Your task to perform on an android device: set the timer Image 0: 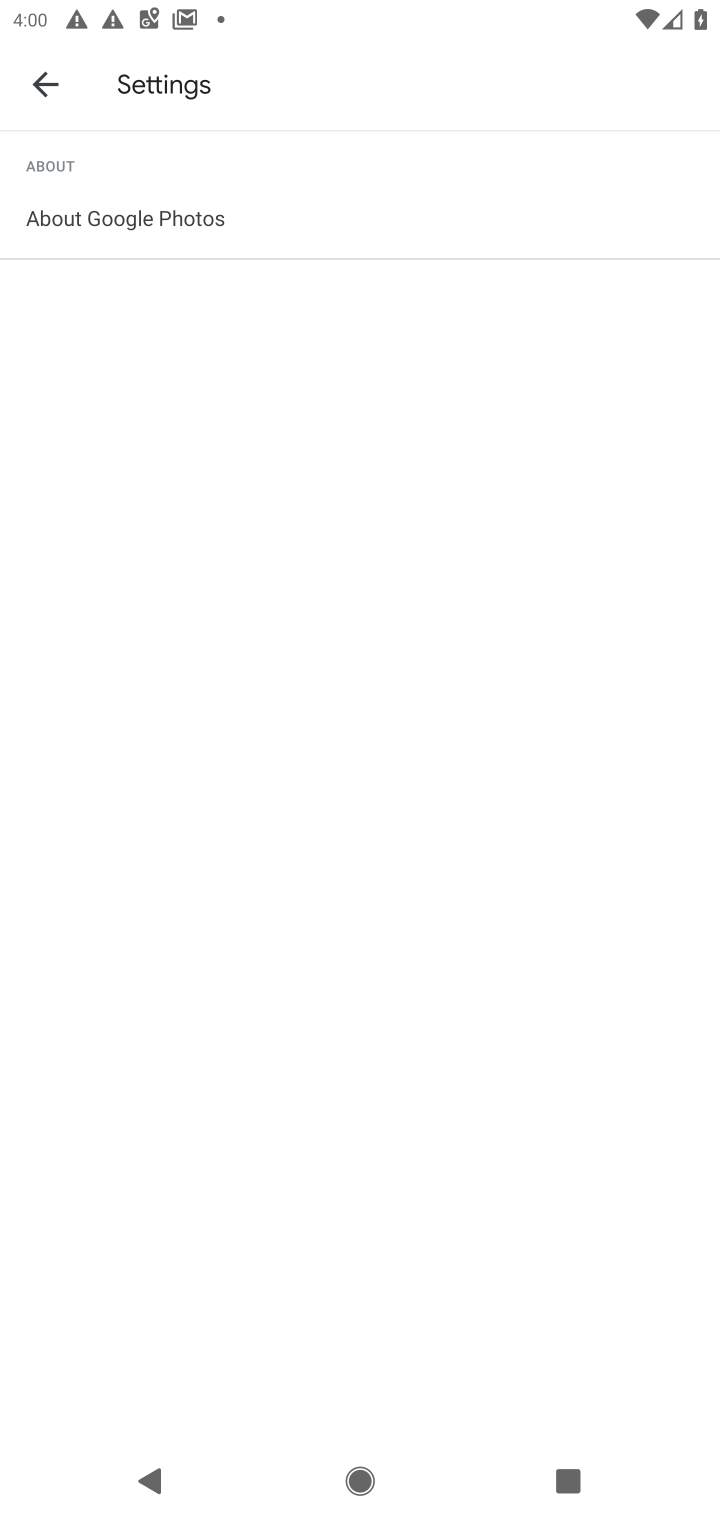
Step 0: press home button
Your task to perform on an android device: set the timer Image 1: 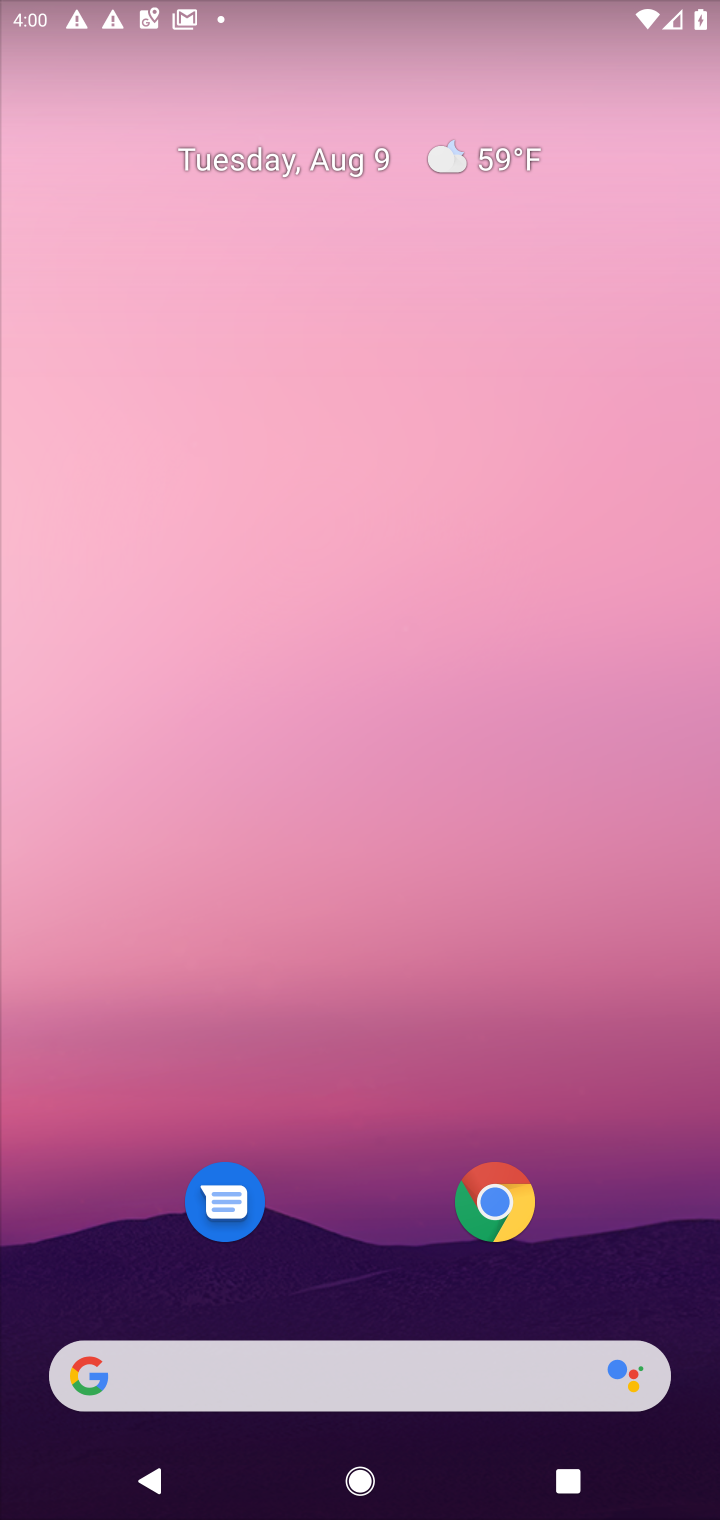
Step 1: drag from (401, 1229) to (481, 198)
Your task to perform on an android device: set the timer Image 2: 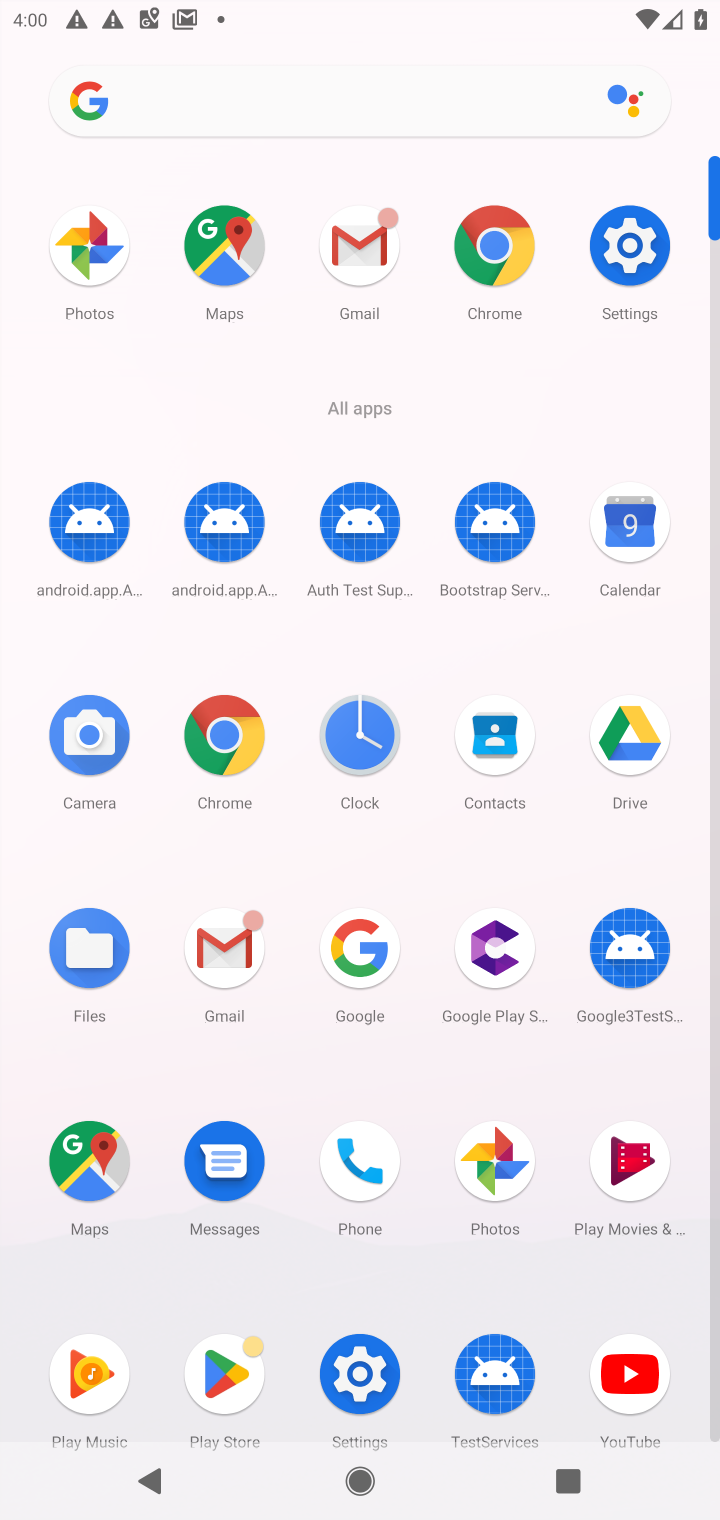
Step 2: click (368, 717)
Your task to perform on an android device: set the timer Image 3: 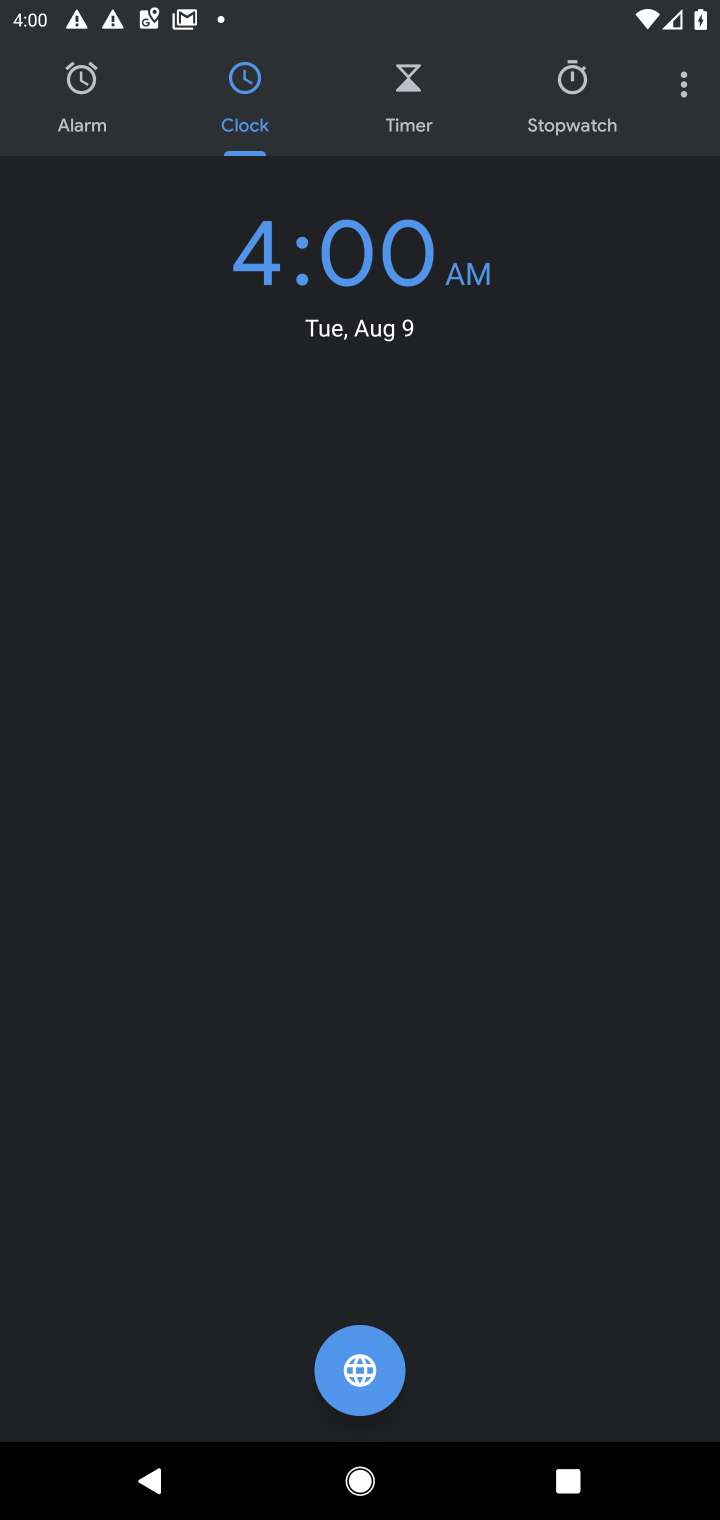
Step 3: click (418, 85)
Your task to perform on an android device: set the timer Image 4: 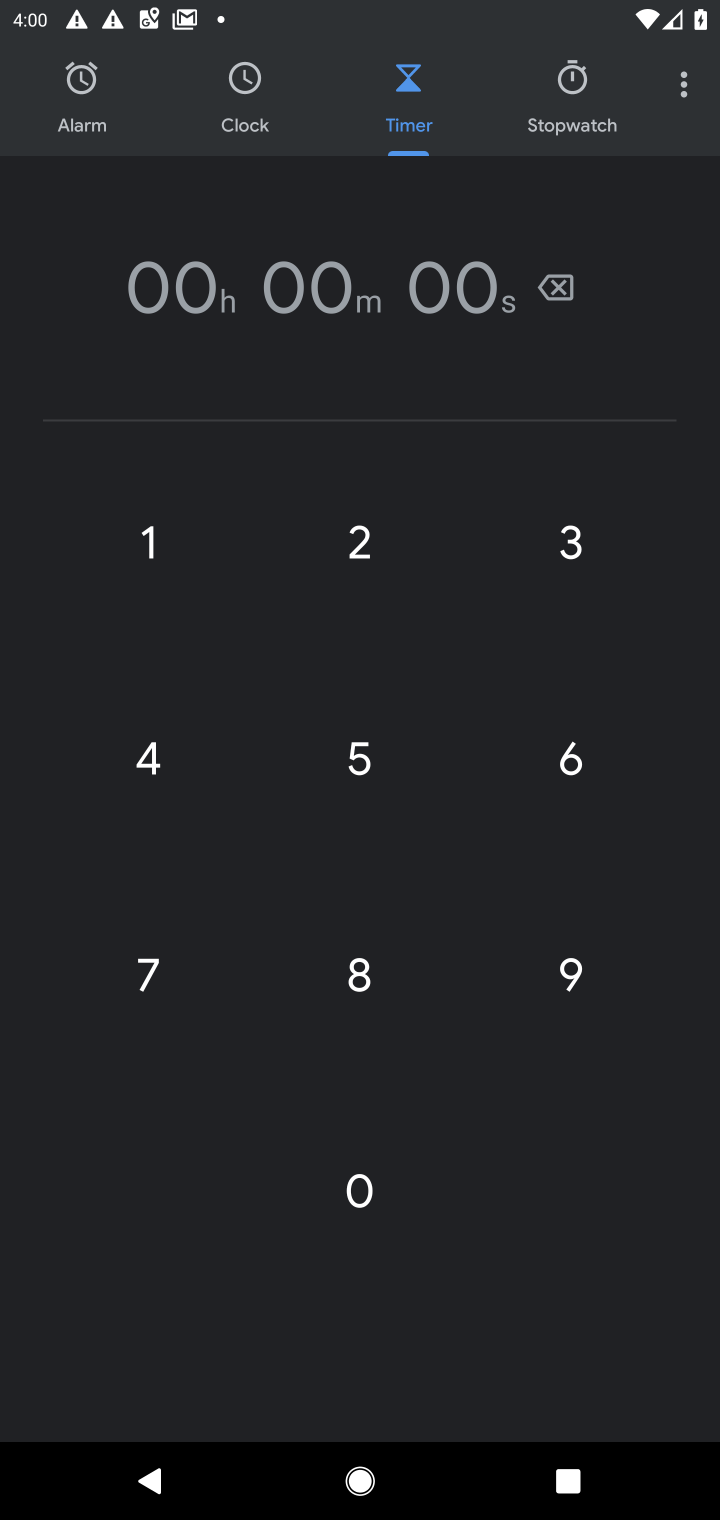
Step 4: click (398, 546)
Your task to perform on an android device: set the timer Image 5: 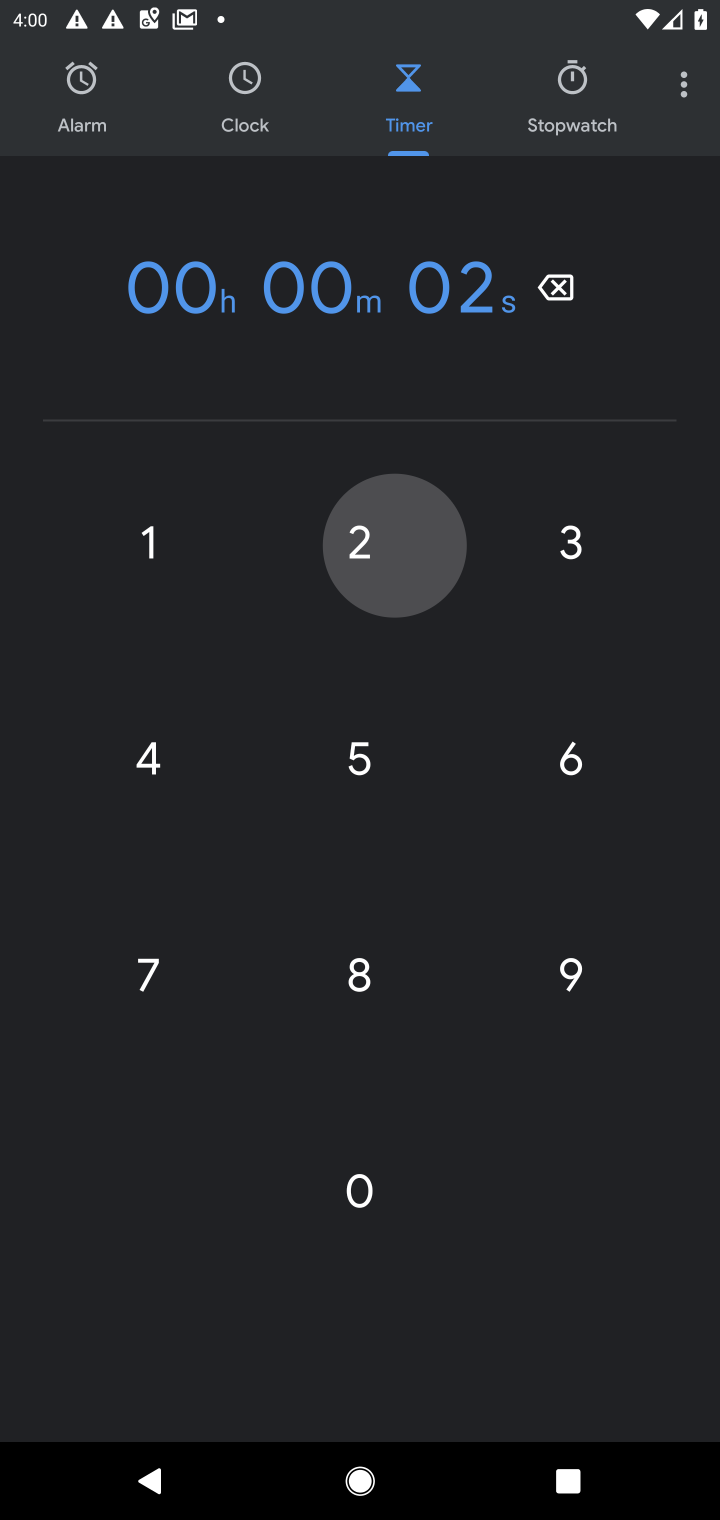
Step 5: click (364, 1195)
Your task to perform on an android device: set the timer Image 6: 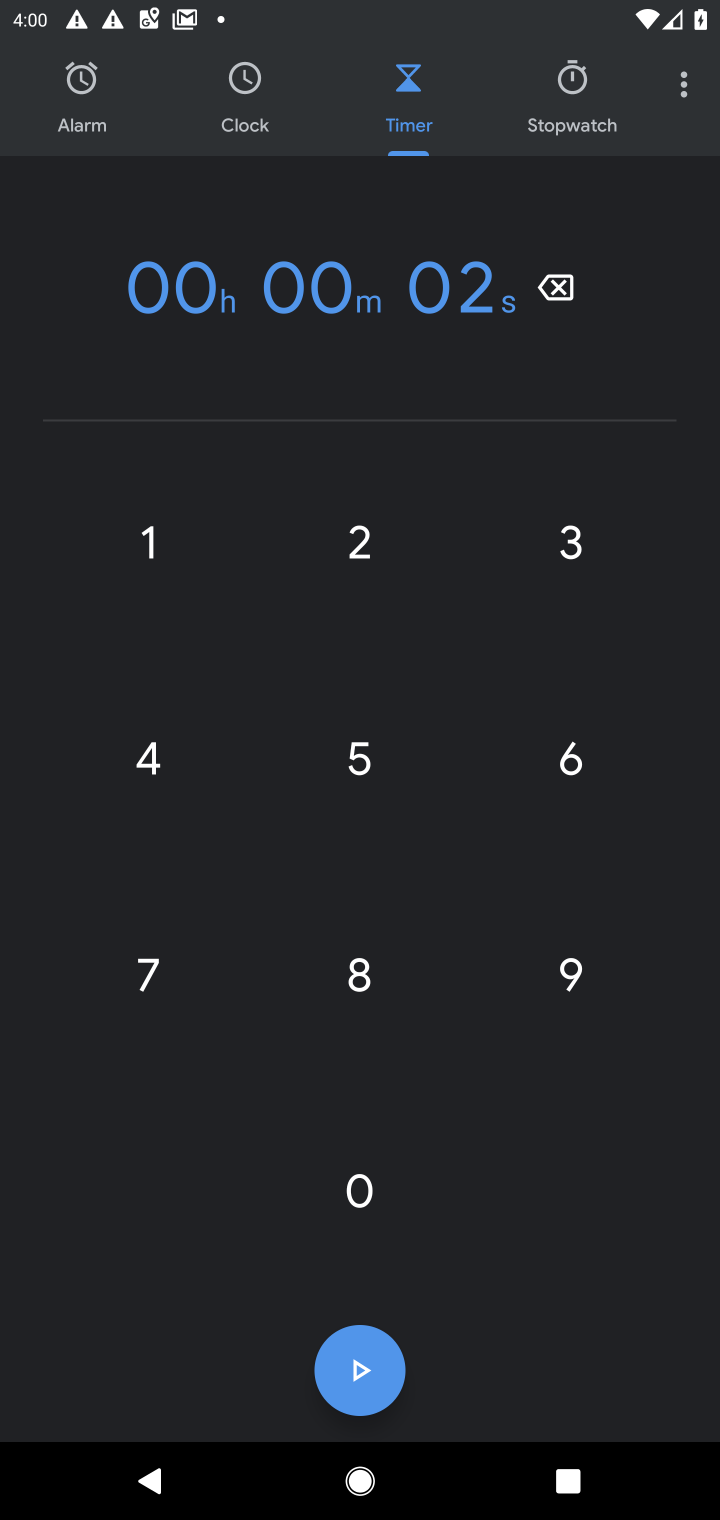
Step 6: click (364, 1195)
Your task to perform on an android device: set the timer Image 7: 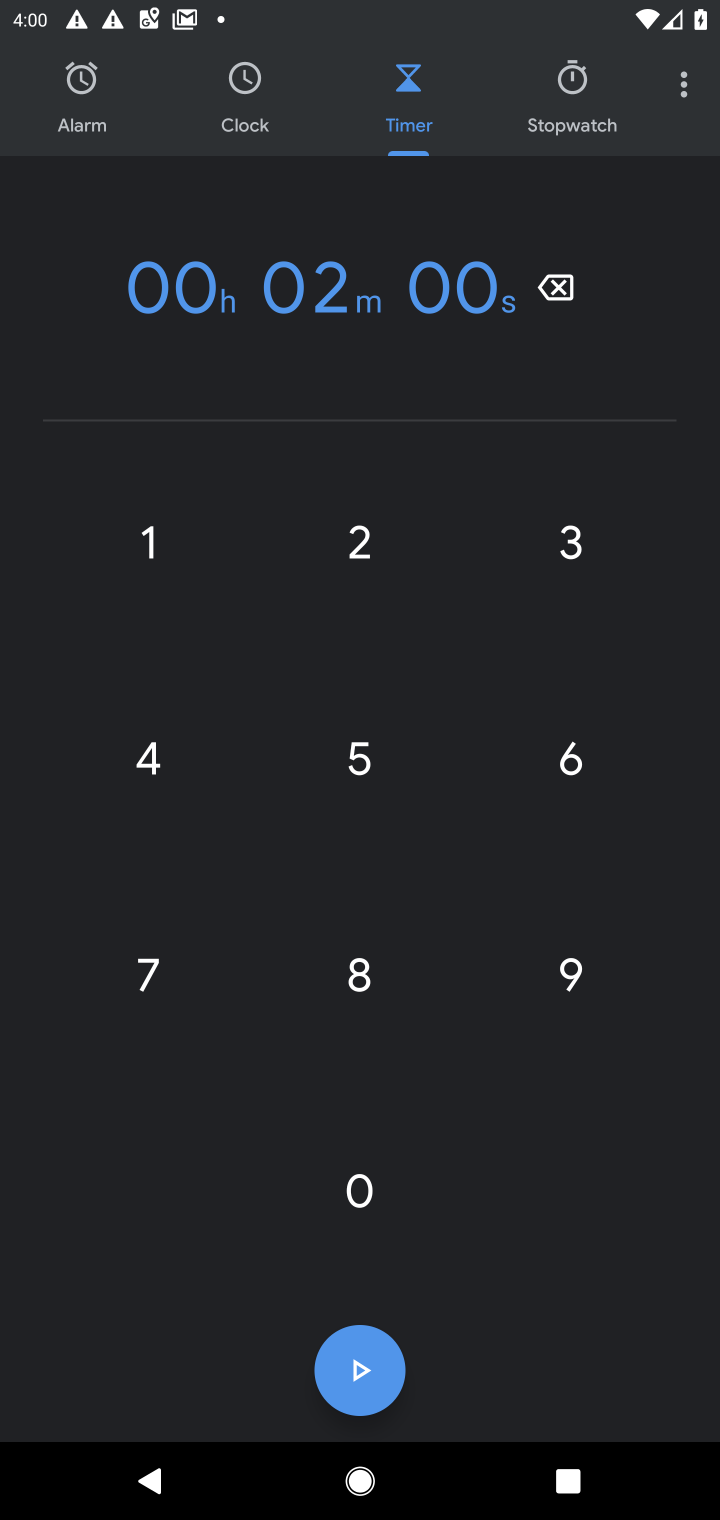
Step 7: click (369, 1191)
Your task to perform on an android device: set the timer Image 8: 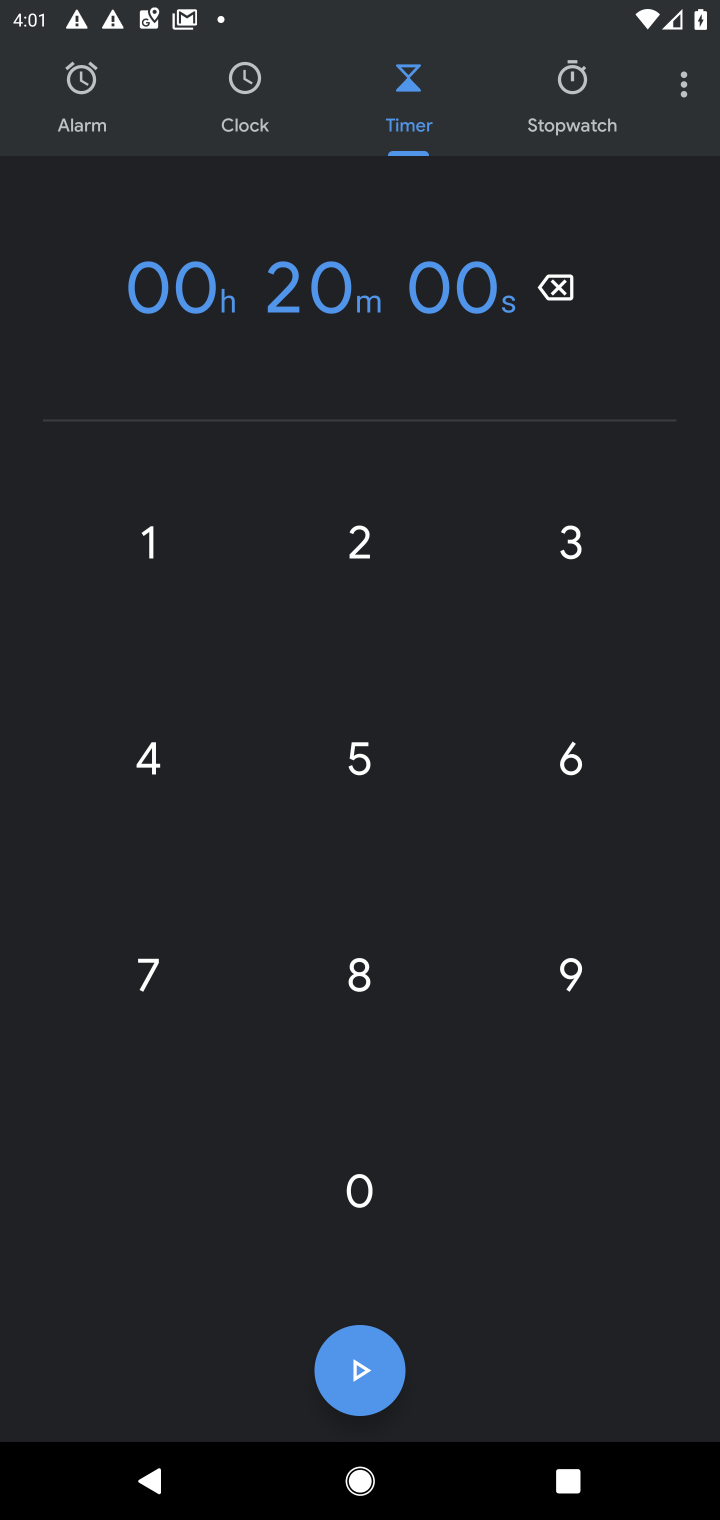
Step 8: click (374, 1365)
Your task to perform on an android device: set the timer Image 9: 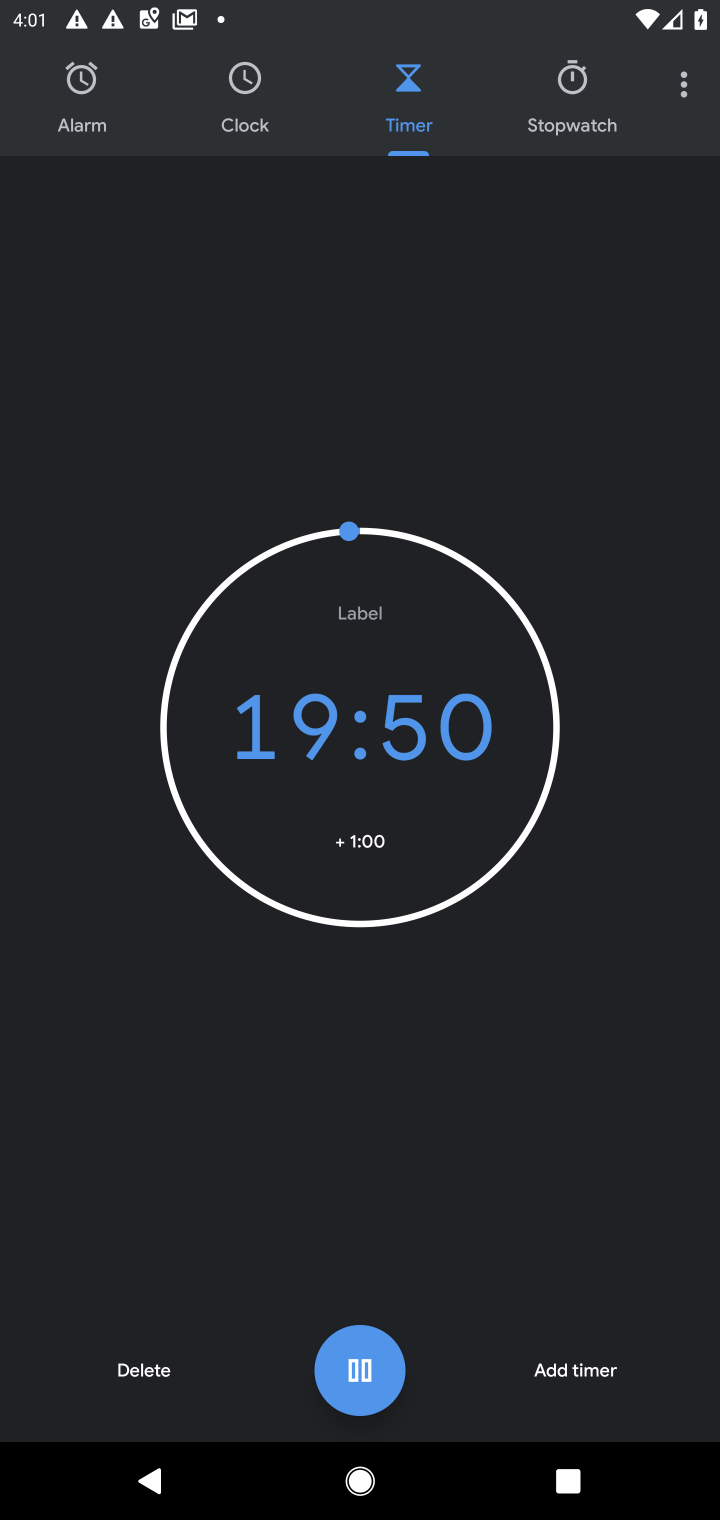
Step 9: task complete